Your task to perform on an android device: toggle show notifications on the lock screen Image 0: 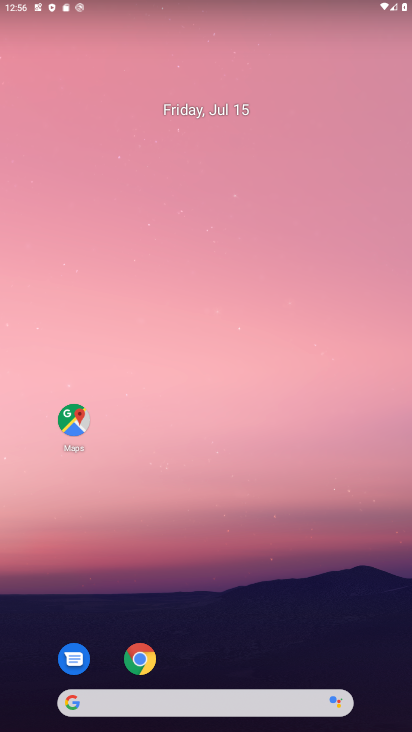
Step 0: drag from (191, 639) to (142, 180)
Your task to perform on an android device: toggle show notifications on the lock screen Image 1: 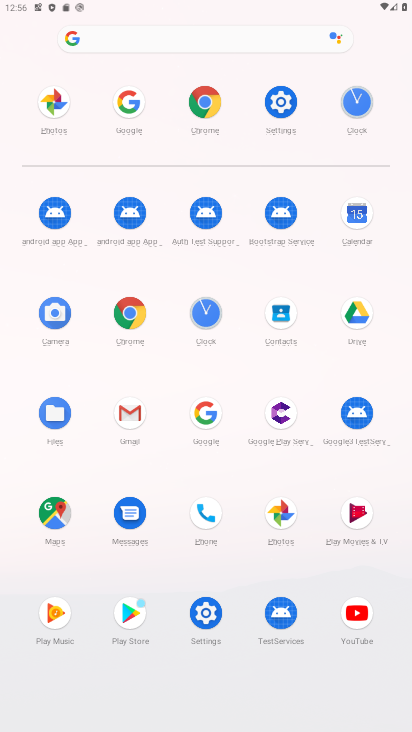
Step 1: click (283, 122)
Your task to perform on an android device: toggle show notifications on the lock screen Image 2: 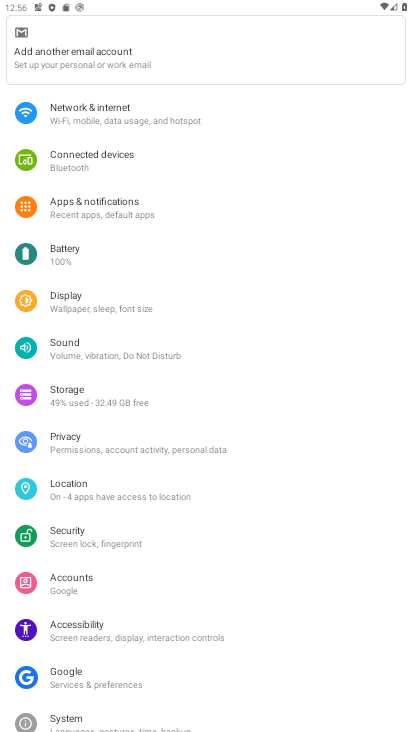
Step 2: click (110, 212)
Your task to perform on an android device: toggle show notifications on the lock screen Image 3: 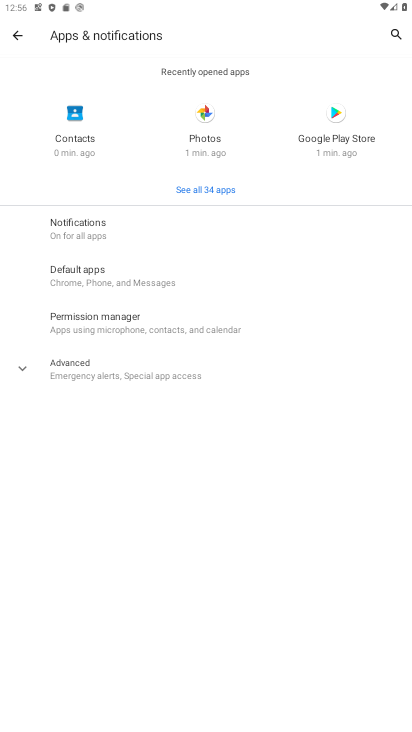
Step 3: click (94, 228)
Your task to perform on an android device: toggle show notifications on the lock screen Image 4: 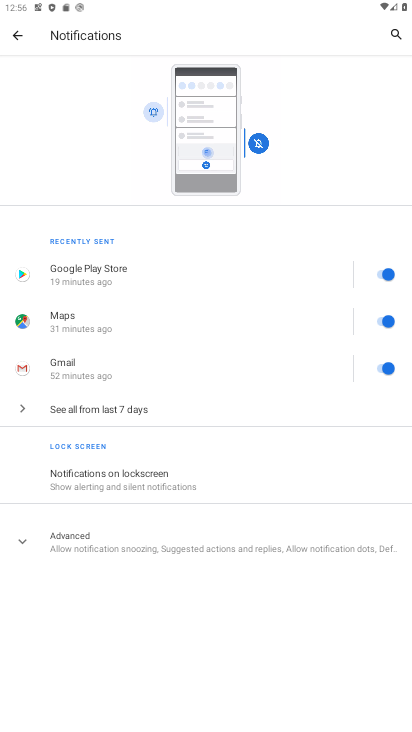
Step 4: click (167, 483)
Your task to perform on an android device: toggle show notifications on the lock screen Image 5: 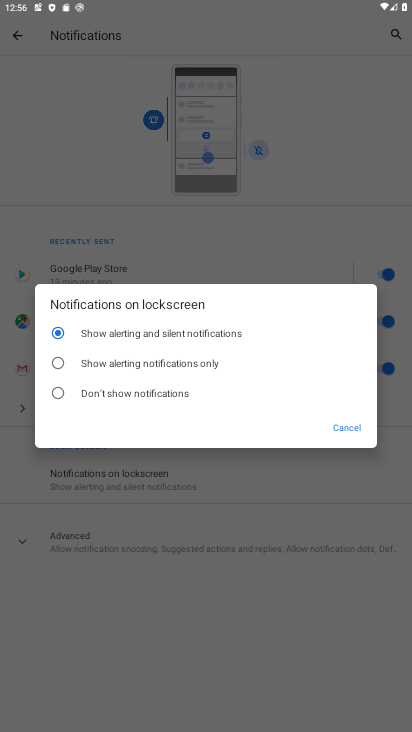
Step 5: click (156, 390)
Your task to perform on an android device: toggle show notifications on the lock screen Image 6: 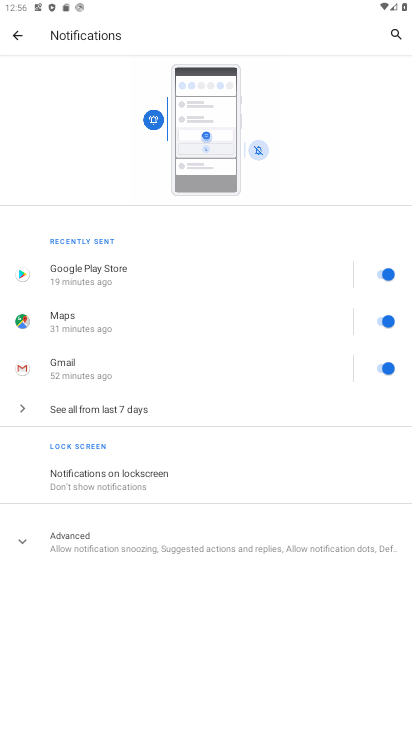
Step 6: task complete